Your task to perform on an android device: Open the phone app and click the voicemail tab. Image 0: 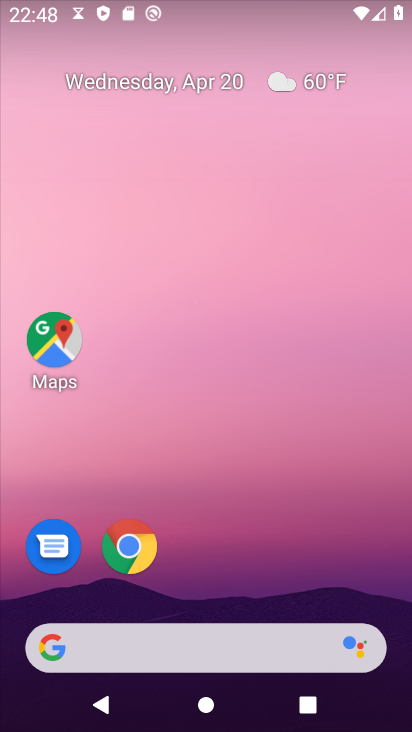
Step 0: drag from (218, 340) to (209, 105)
Your task to perform on an android device: Open the phone app and click the voicemail tab. Image 1: 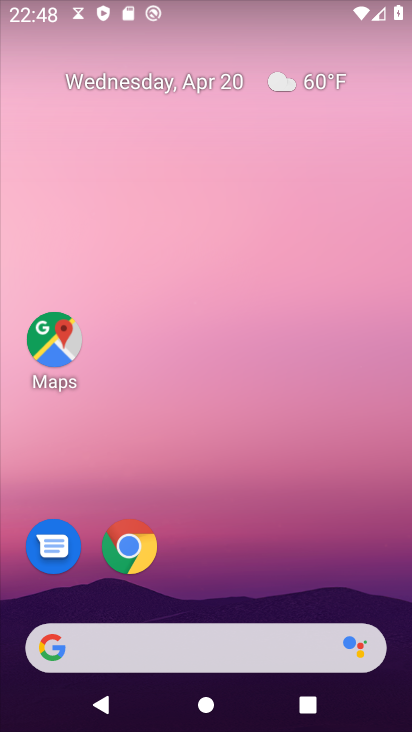
Step 1: drag from (251, 442) to (264, 37)
Your task to perform on an android device: Open the phone app and click the voicemail tab. Image 2: 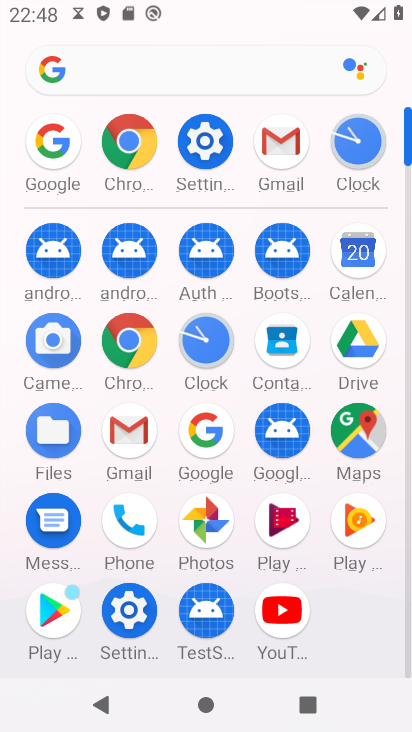
Step 2: click (133, 533)
Your task to perform on an android device: Open the phone app and click the voicemail tab. Image 3: 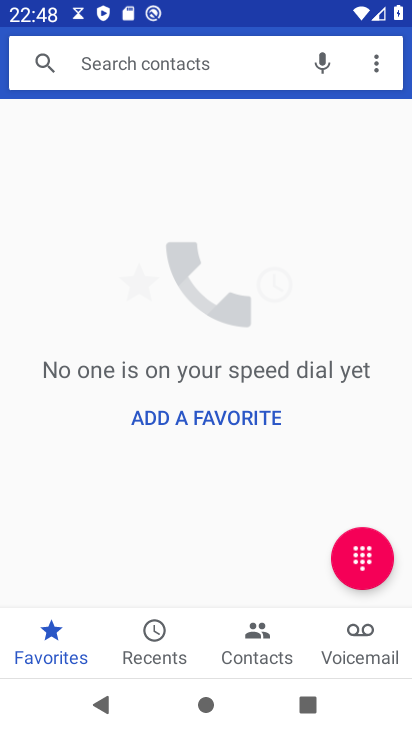
Step 3: click (364, 637)
Your task to perform on an android device: Open the phone app and click the voicemail tab. Image 4: 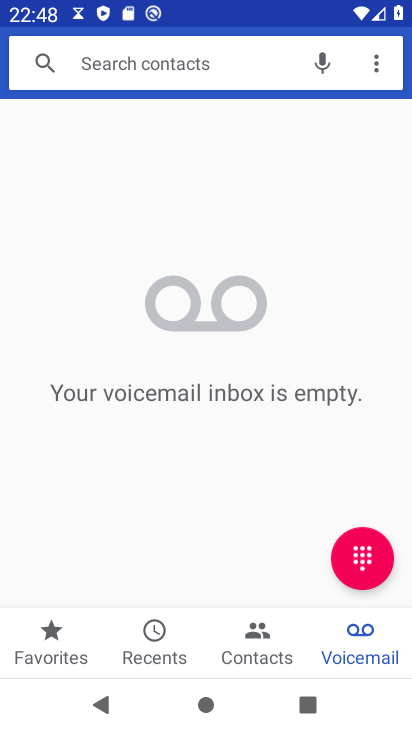
Step 4: task complete